Your task to perform on an android device: When is my next meeting? Image 0: 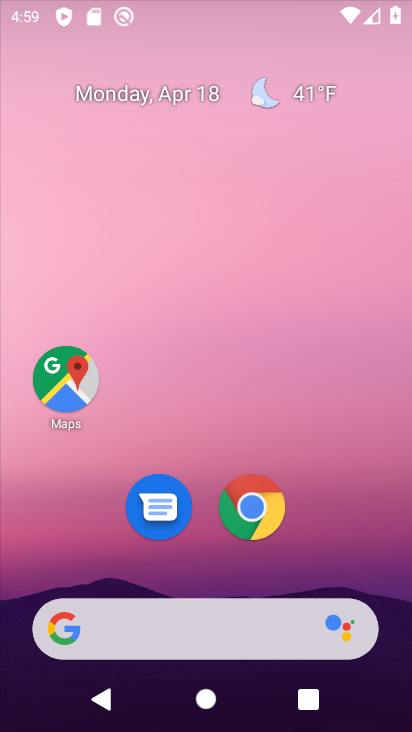
Step 0: drag from (264, 512) to (263, 74)
Your task to perform on an android device: When is my next meeting? Image 1: 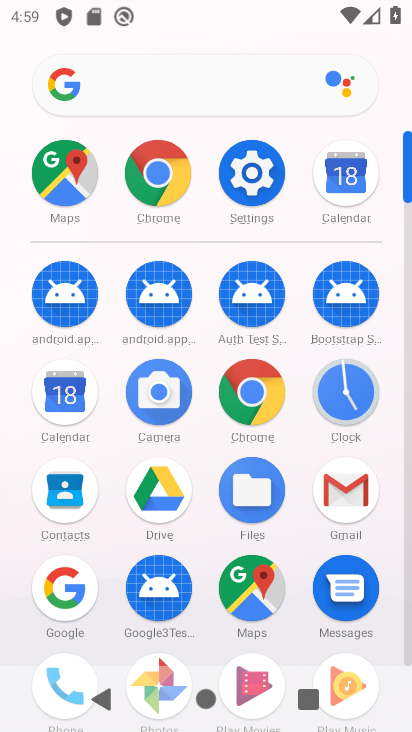
Step 1: click (261, 385)
Your task to perform on an android device: When is my next meeting? Image 2: 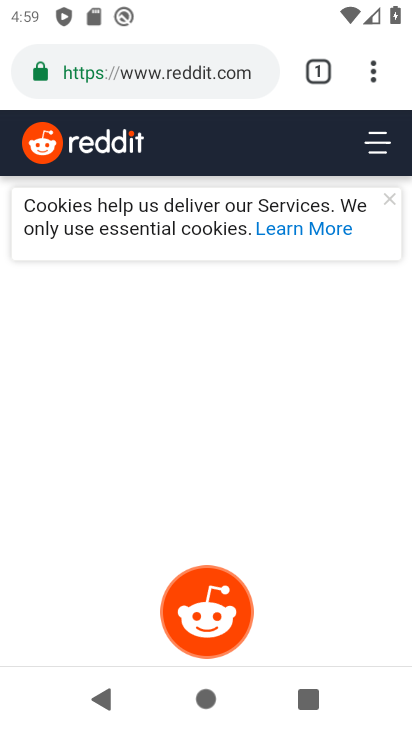
Step 2: click (365, 71)
Your task to perform on an android device: When is my next meeting? Image 3: 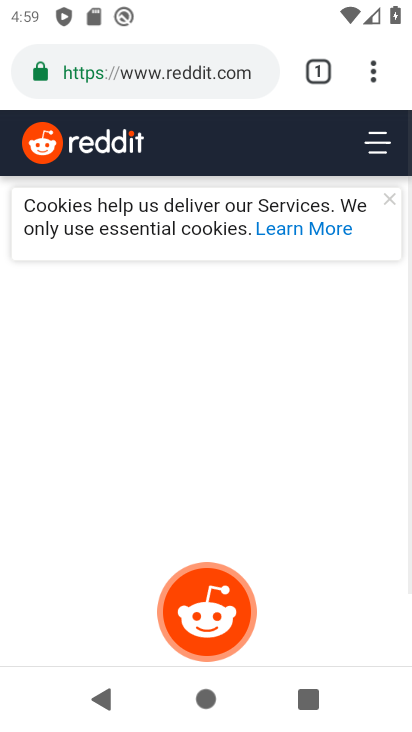
Step 3: click (395, 71)
Your task to perform on an android device: When is my next meeting? Image 4: 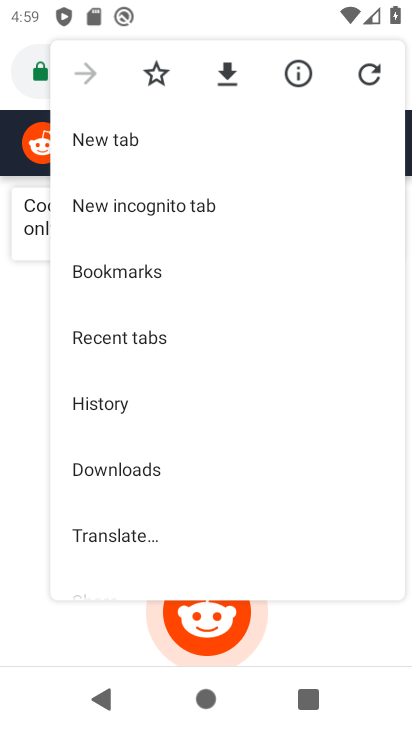
Step 4: click (263, 658)
Your task to perform on an android device: When is my next meeting? Image 5: 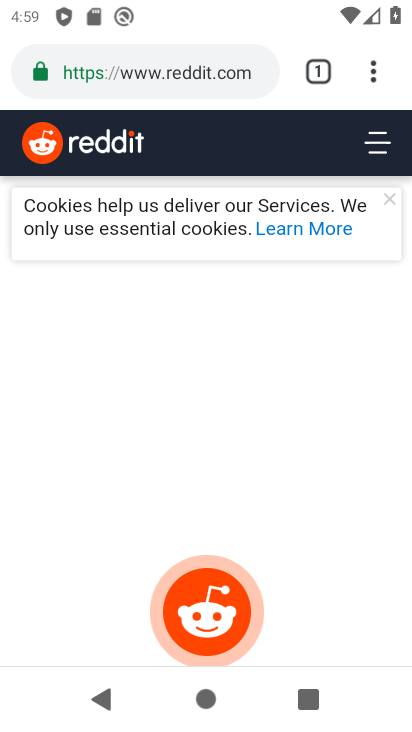
Step 5: press home button
Your task to perform on an android device: When is my next meeting? Image 6: 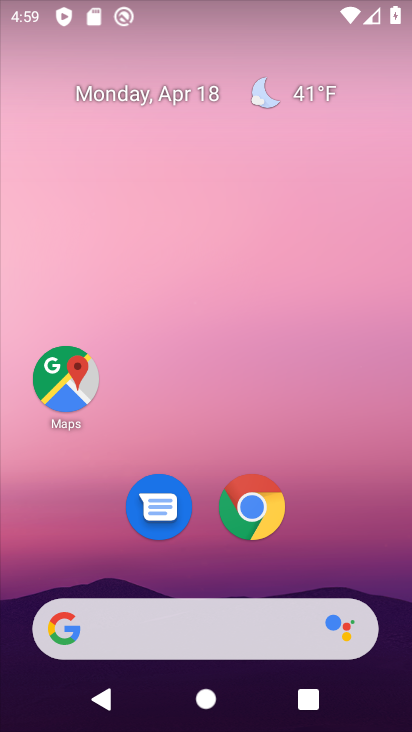
Step 6: drag from (236, 574) to (242, 56)
Your task to perform on an android device: When is my next meeting? Image 7: 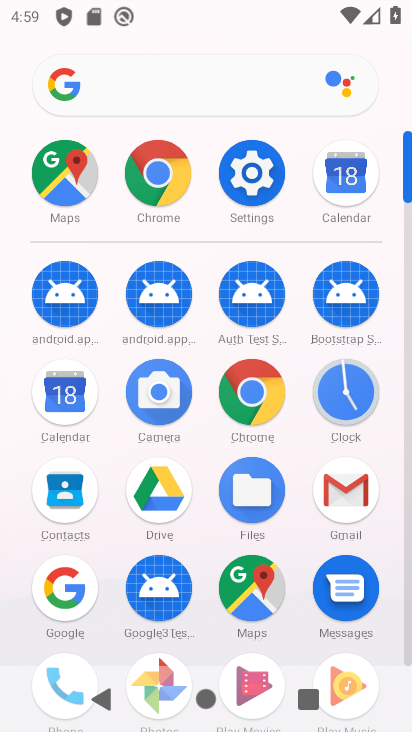
Step 7: drag from (283, 528) to (286, 173)
Your task to perform on an android device: When is my next meeting? Image 8: 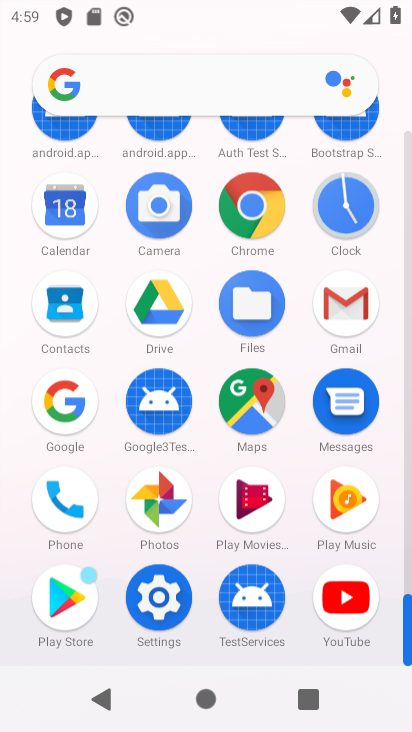
Step 8: drag from (291, 192) to (322, 706)
Your task to perform on an android device: When is my next meeting? Image 9: 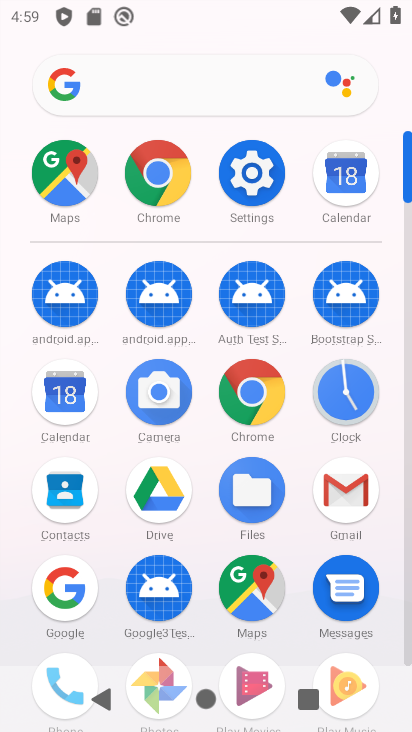
Step 9: click (54, 394)
Your task to perform on an android device: When is my next meeting? Image 10: 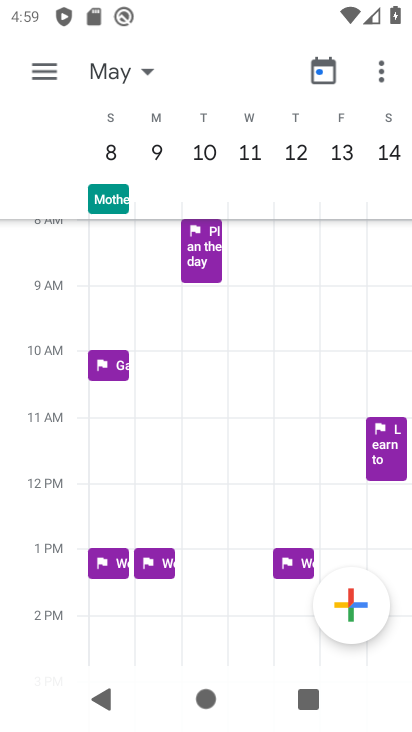
Step 10: click (151, 68)
Your task to perform on an android device: When is my next meeting? Image 11: 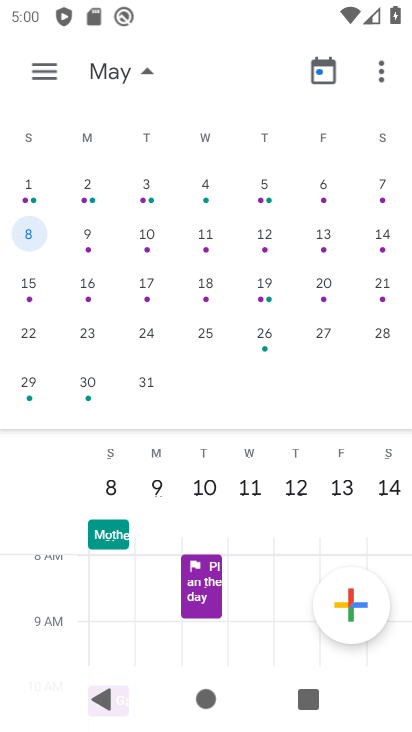
Step 11: task complete